Your task to perform on an android device: Open CNN.com Image 0: 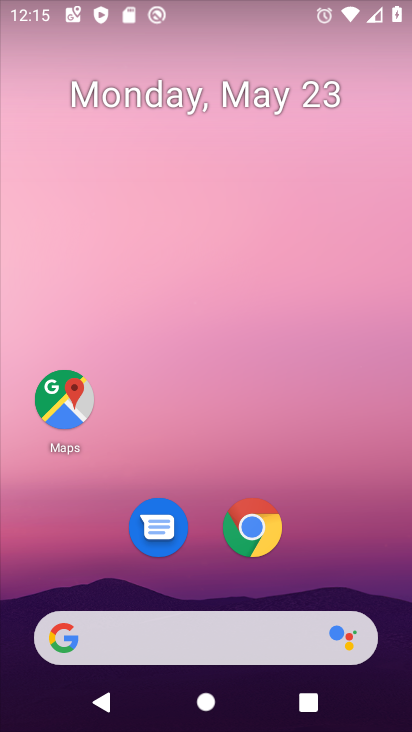
Step 0: click (265, 533)
Your task to perform on an android device: Open CNN.com Image 1: 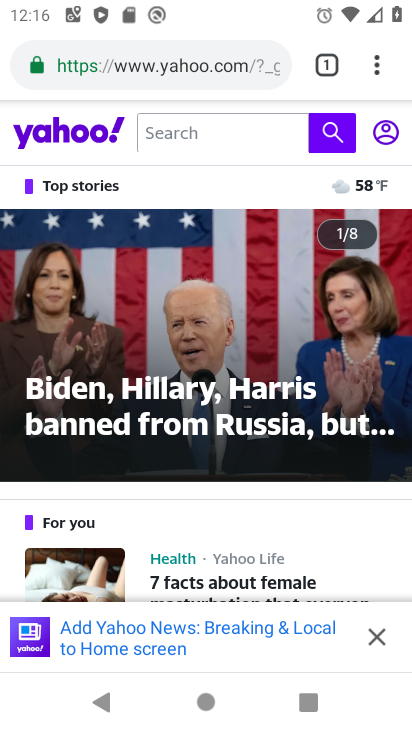
Step 1: click (216, 76)
Your task to perform on an android device: Open CNN.com Image 2: 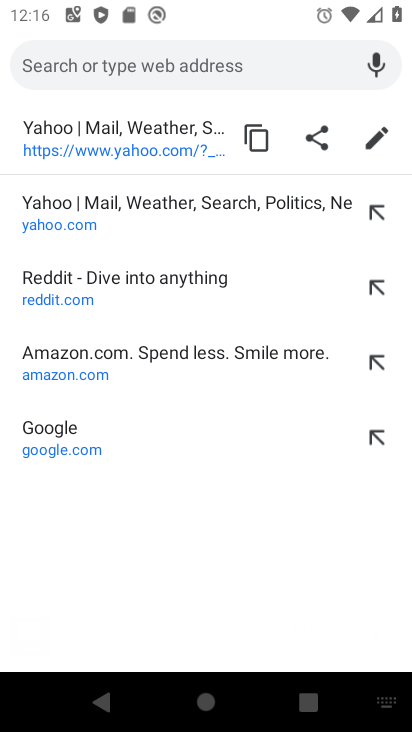
Step 2: type "cnn.com"
Your task to perform on an android device: Open CNN.com Image 3: 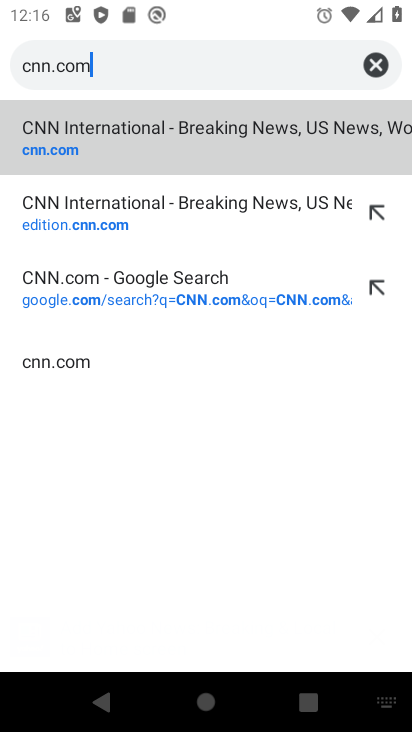
Step 3: click (123, 146)
Your task to perform on an android device: Open CNN.com Image 4: 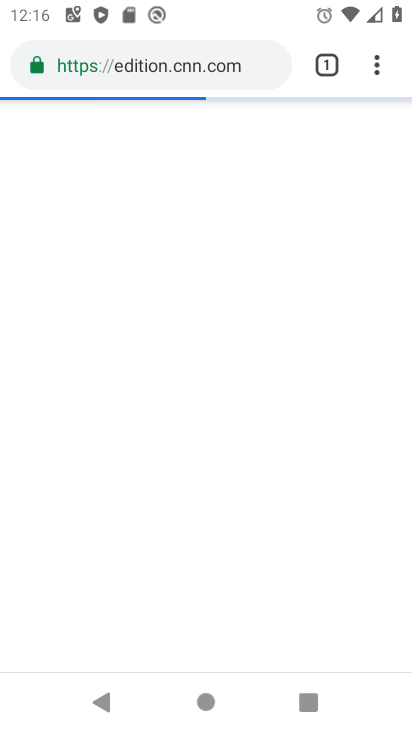
Step 4: task complete